Your task to perform on an android device: View the shopping cart on newegg.com. Add corsair k70 to the cart on newegg.com, then select checkout. Image 0: 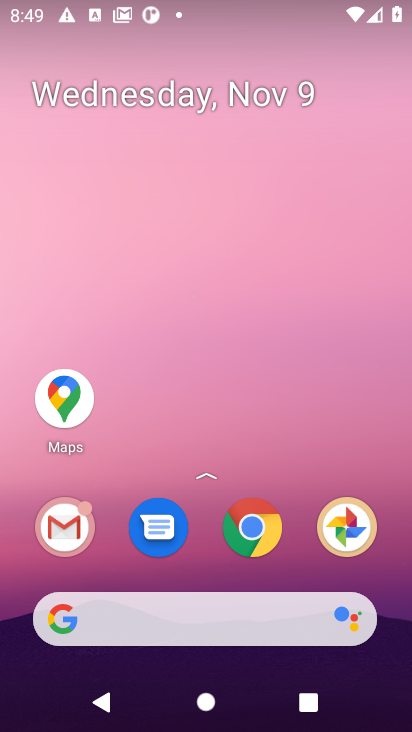
Step 0: click (244, 536)
Your task to perform on an android device: View the shopping cart on newegg.com. Add corsair k70 to the cart on newegg.com, then select checkout. Image 1: 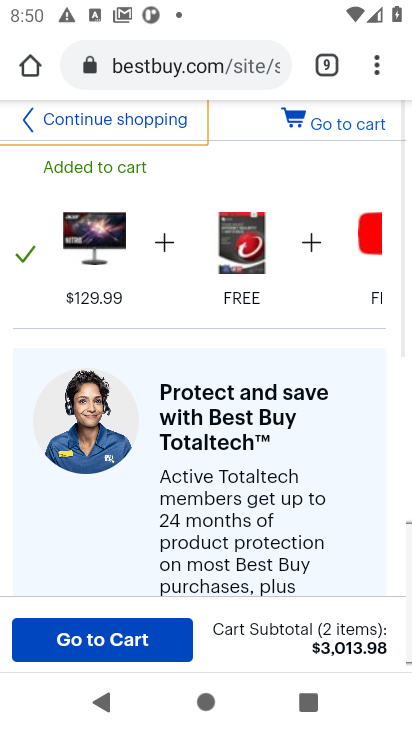
Step 1: click (200, 70)
Your task to perform on an android device: View the shopping cart on newegg.com. Add corsair k70 to the cart on newegg.com, then select checkout. Image 2: 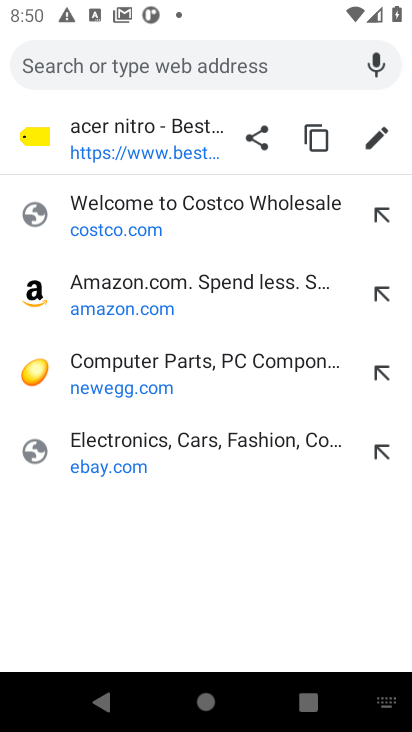
Step 2: click (120, 370)
Your task to perform on an android device: View the shopping cart on newegg.com. Add corsair k70 to the cart on newegg.com, then select checkout. Image 3: 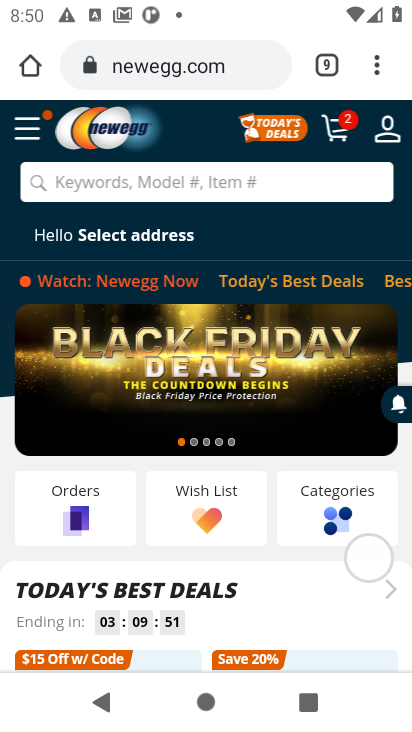
Step 3: click (340, 139)
Your task to perform on an android device: View the shopping cart on newegg.com. Add corsair k70 to the cart on newegg.com, then select checkout. Image 4: 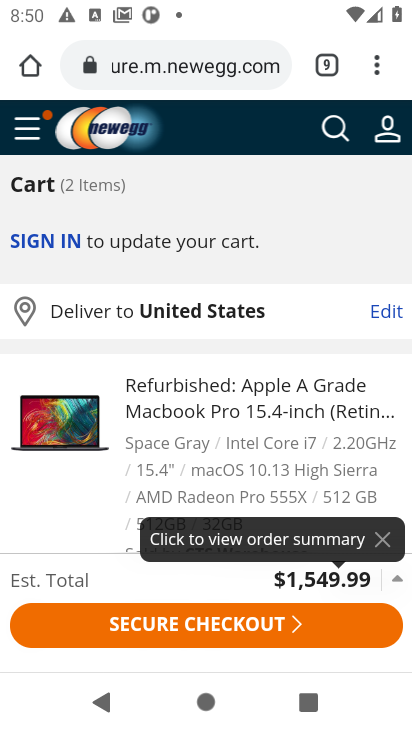
Step 4: click (324, 135)
Your task to perform on an android device: View the shopping cart on newegg.com. Add corsair k70 to the cart on newegg.com, then select checkout. Image 5: 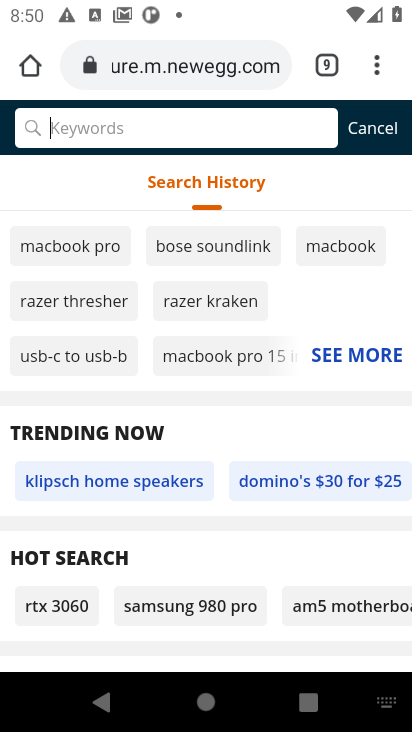
Step 5: type "corsair k70"
Your task to perform on an android device: View the shopping cart on newegg.com. Add corsair k70 to the cart on newegg.com, then select checkout. Image 6: 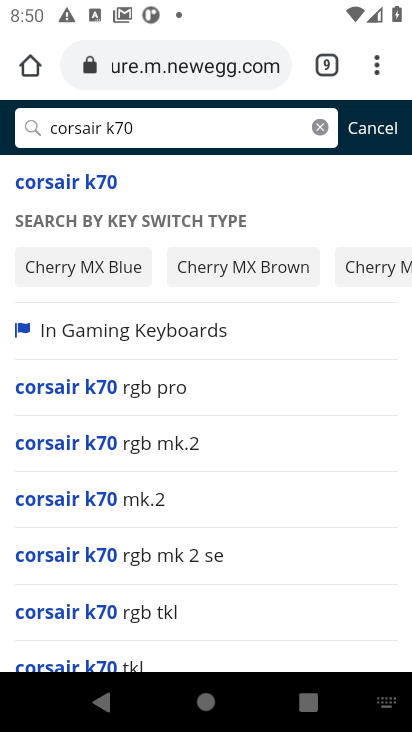
Step 6: click (100, 184)
Your task to perform on an android device: View the shopping cart on newegg.com. Add corsair k70 to the cart on newegg.com, then select checkout. Image 7: 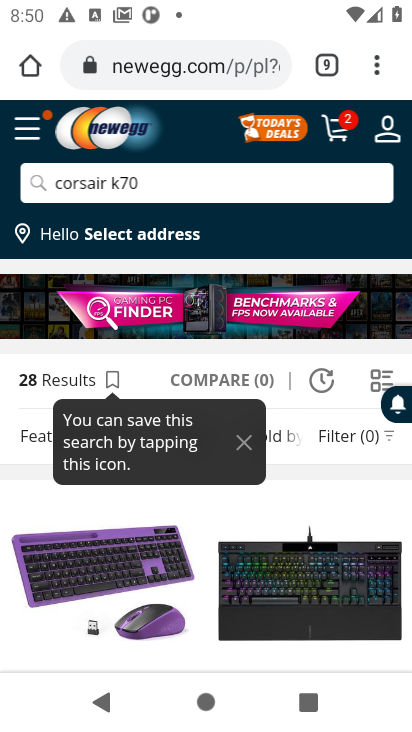
Step 7: drag from (143, 571) to (137, 430)
Your task to perform on an android device: View the shopping cart on newegg.com. Add corsair k70 to the cart on newegg.com, then select checkout. Image 8: 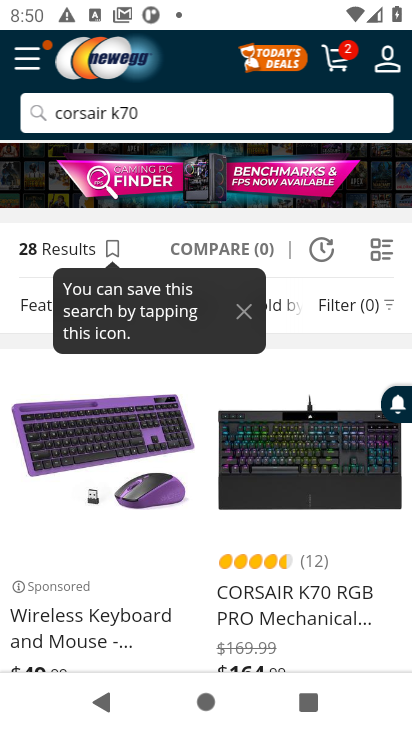
Step 8: drag from (127, 488) to (124, 394)
Your task to perform on an android device: View the shopping cart on newegg.com. Add corsair k70 to the cart on newegg.com, then select checkout. Image 9: 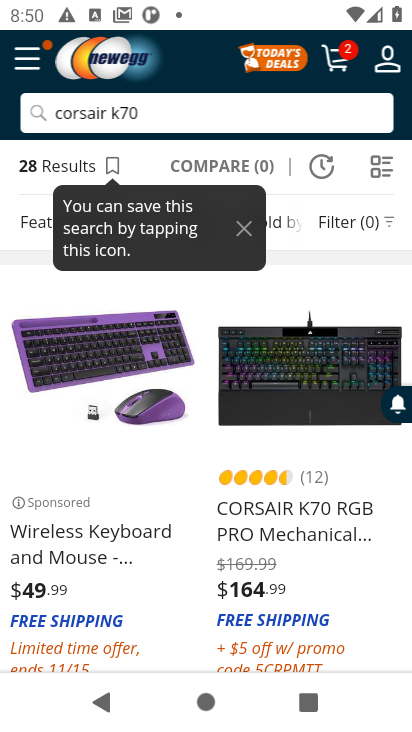
Step 9: click (323, 448)
Your task to perform on an android device: View the shopping cart on newegg.com. Add corsair k70 to the cart on newegg.com, then select checkout. Image 10: 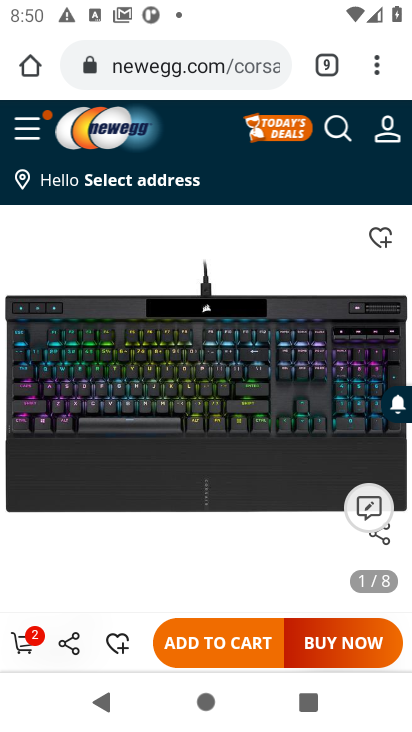
Step 10: click (211, 647)
Your task to perform on an android device: View the shopping cart on newegg.com. Add corsair k70 to the cart on newegg.com, then select checkout. Image 11: 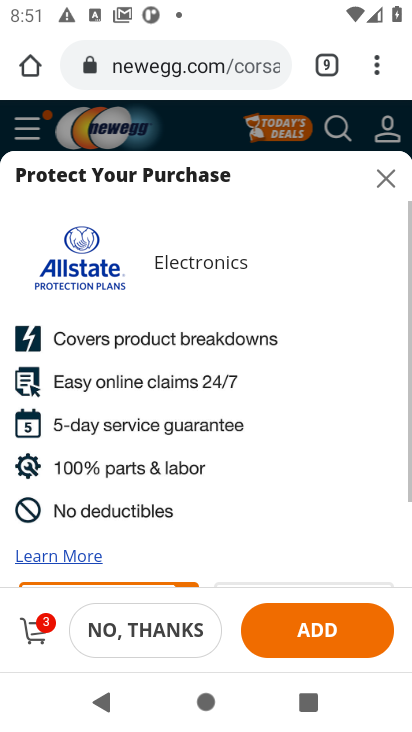
Step 11: click (31, 634)
Your task to perform on an android device: View the shopping cart on newegg.com. Add corsair k70 to the cart on newegg.com, then select checkout. Image 12: 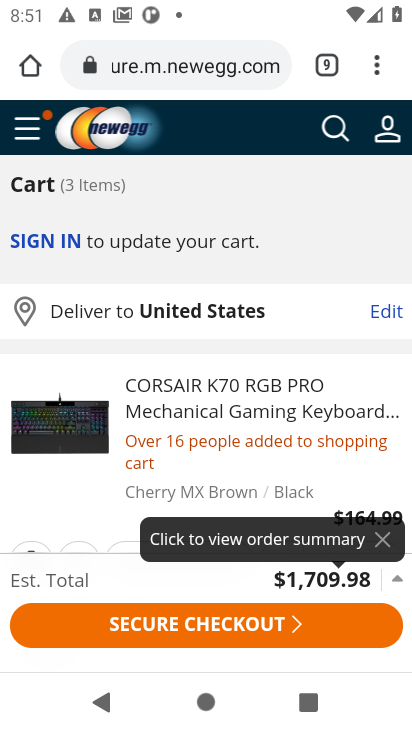
Step 12: click (179, 629)
Your task to perform on an android device: View the shopping cart on newegg.com. Add corsair k70 to the cart on newegg.com, then select checkout. Image 13: 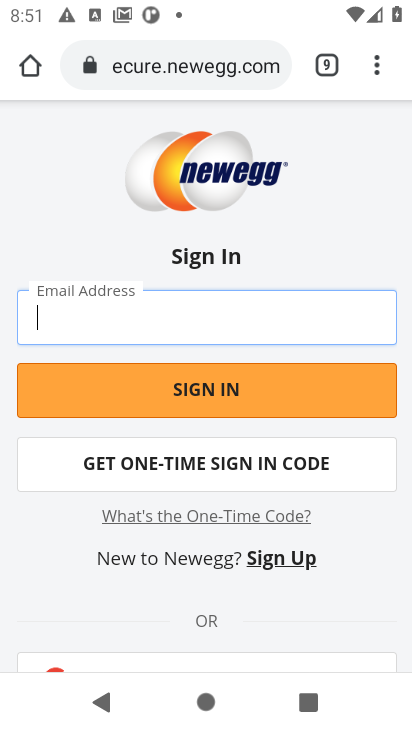
Step 13: task complete